Your task to perform on an android device: Go to CNN.com Image 0: 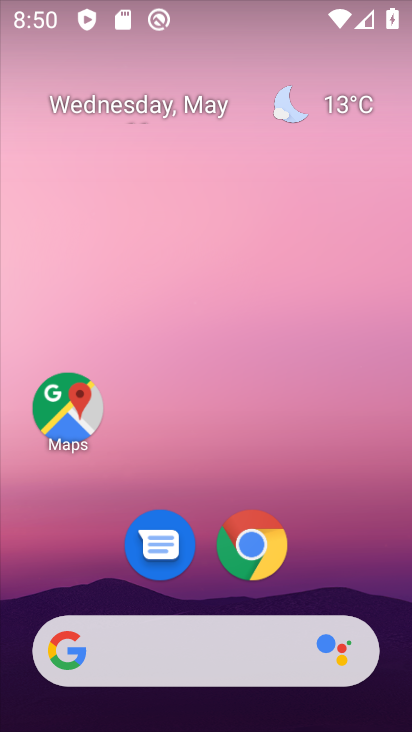
Step 0: drag from (320, 446) to (216, 17)
Your task to perform on an android device: Go to CNN.com Image 1: 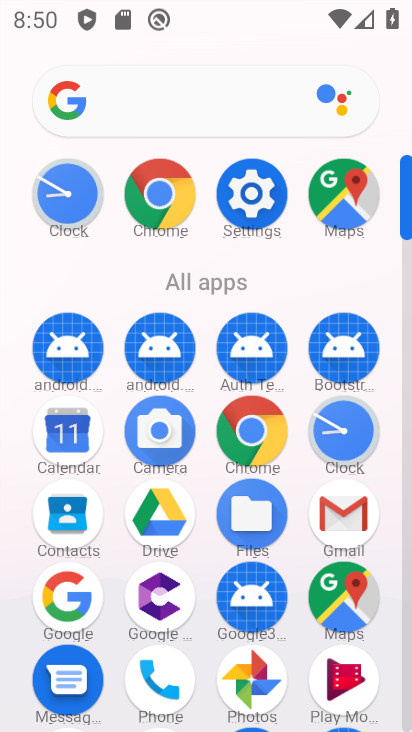
Step 1: click (158, 185)
Your task to perform on an android device: Go to CNN.com Image 2: 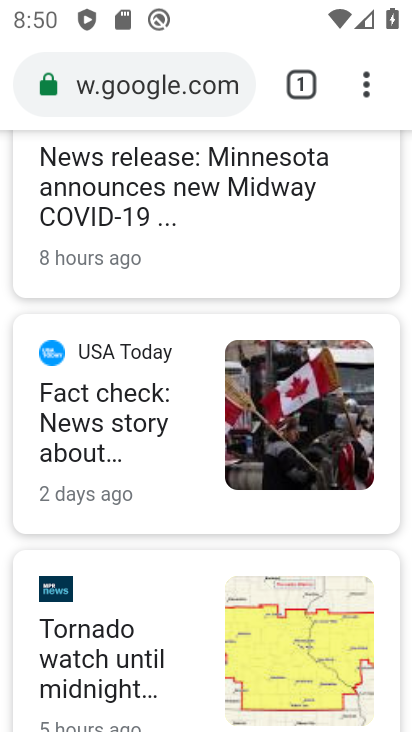
Step 2: click (178, 82)
Your task to perform on an android device: Go to CNN.com Image 3: 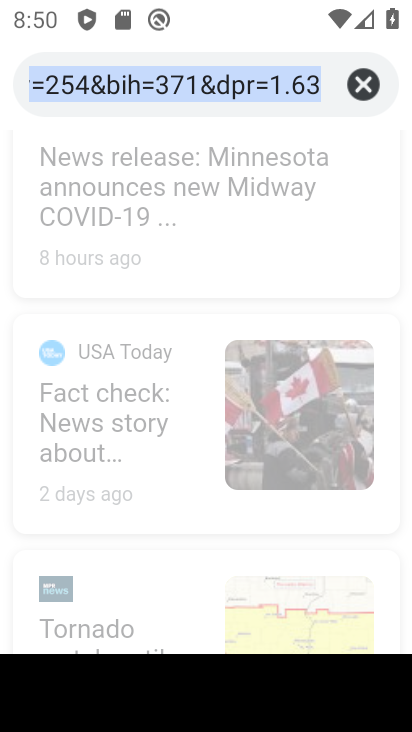
Step 3: click (357, 80)
Your task to perform on an android device: Go to CNN.com Image 4: 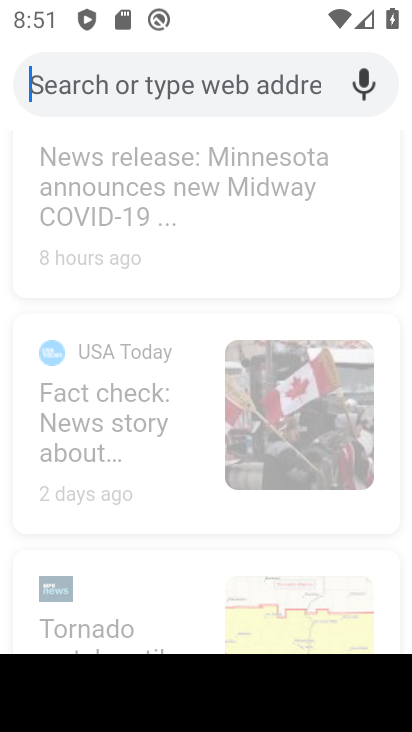
Step 4: type "CNN.com"
Your task to perform on an android device: Go to CNN.com Image 5: 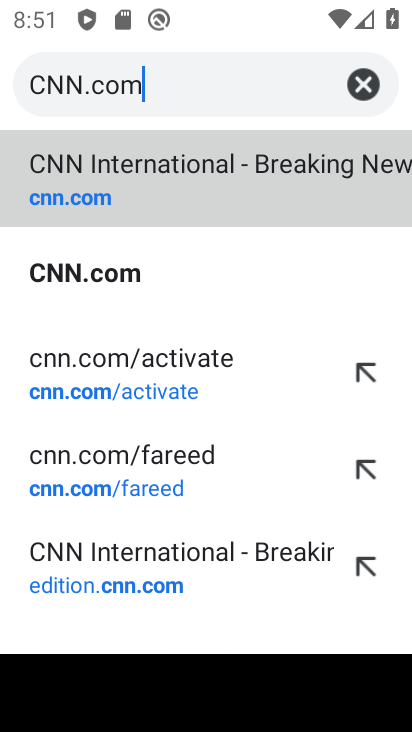
Step 5: type ""
Your task to perform on an android device: Go to CNN.com Image 6: 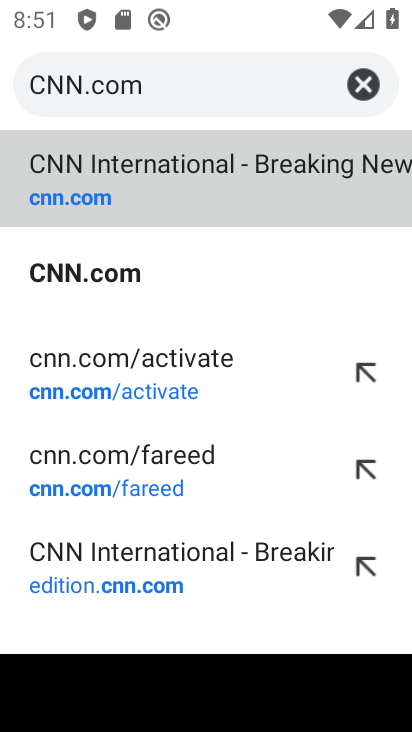
Step 6: click (157, 180)
Your task to perform on an android device: Go to CNN.com Image 7: 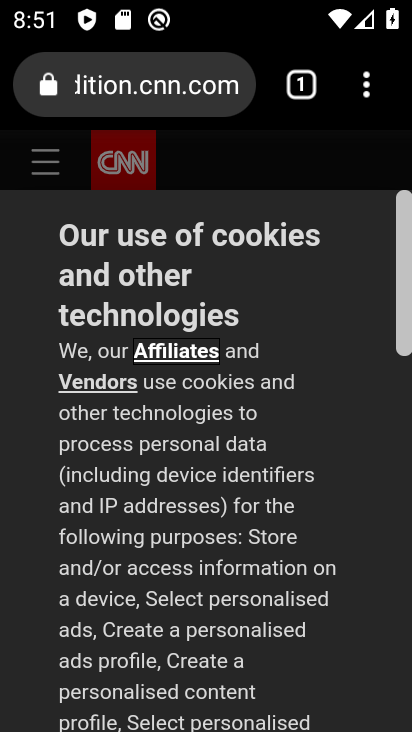
Step 7: task complete